Your task to perform on an android device: Go to Yahoo.com Image 0: 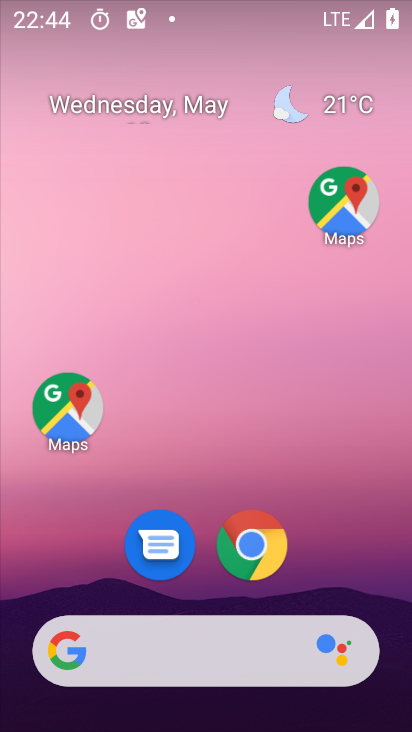
Step 0: click (241, 559)
Your task to perform on an android device: Go to Yahoo.com Image 1: 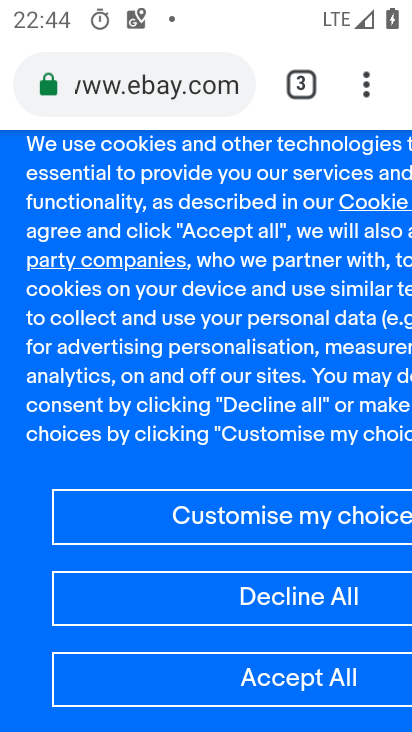
Step 1: click (158, 83)
Your task to perform on an android device: Go to Yahoo.com Image 2: 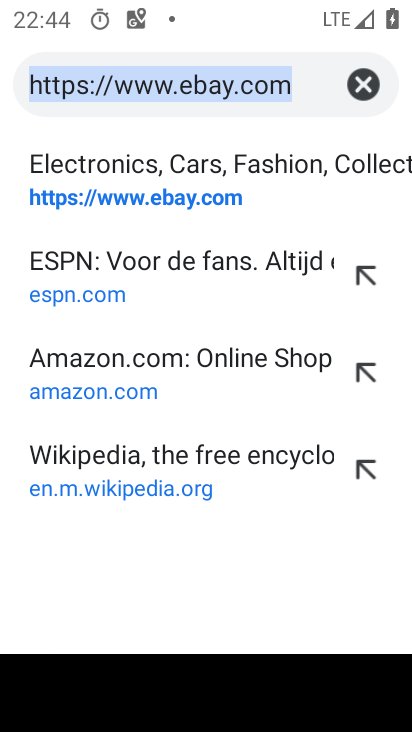
Step 2: type "yahoo.com"
Your task to perform on an android device: Go to Yahoo.com Image 3: 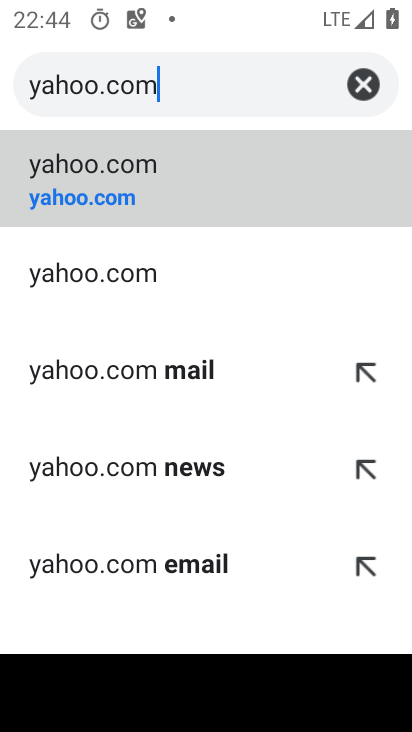
Step 3: click (50, 177)
Your task to perform on an android device: Go to Yahoo.com Image 4: 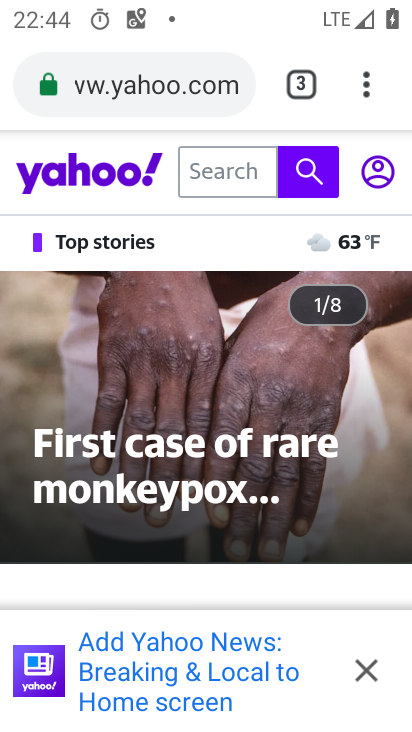
Step 4: task complete